Your task to perform on an android device: Show me recent news Image 0: 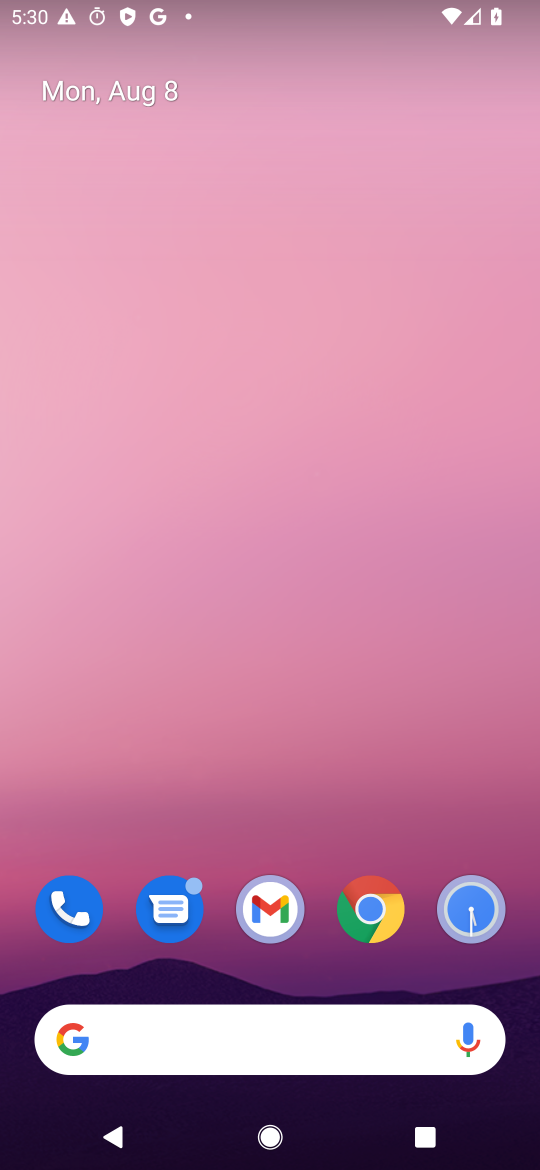
Step 0: click (192, 1031)
Your task to perform on an android device: Show me recent news Image 1: 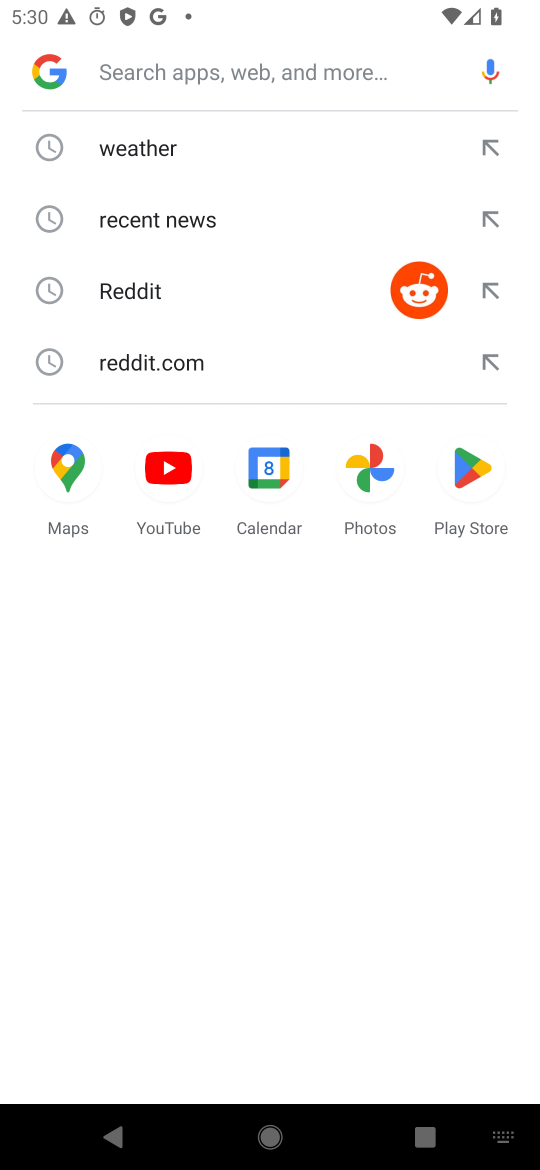
Step 1: click (181, 213)
Your task to perform on an android device: Show me recent news Image 2: 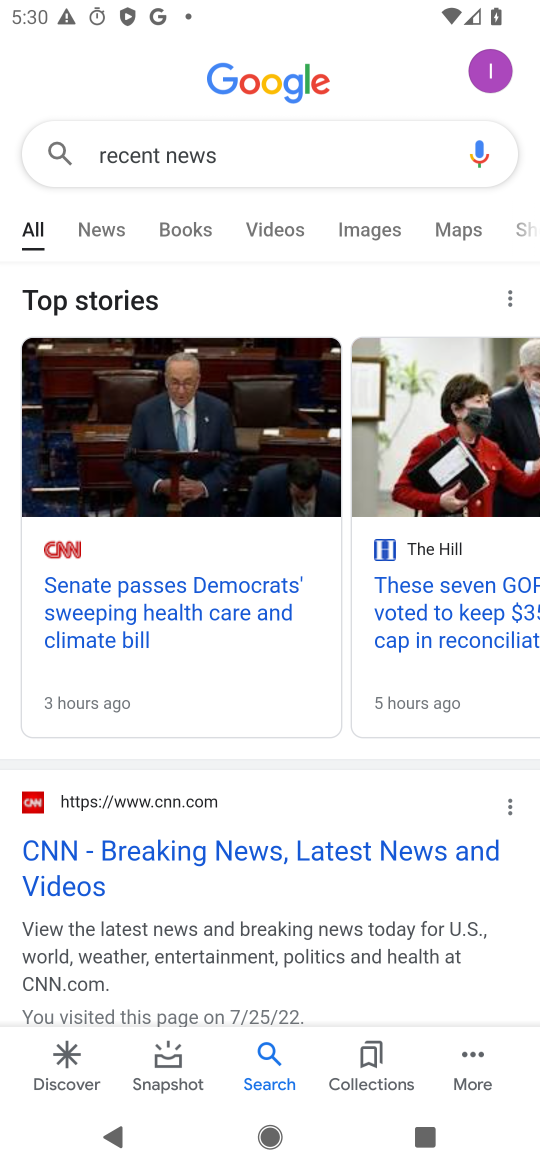
Step 2: click (86, 234)
Your task to perform on an android device: Show me recent news Image 3: 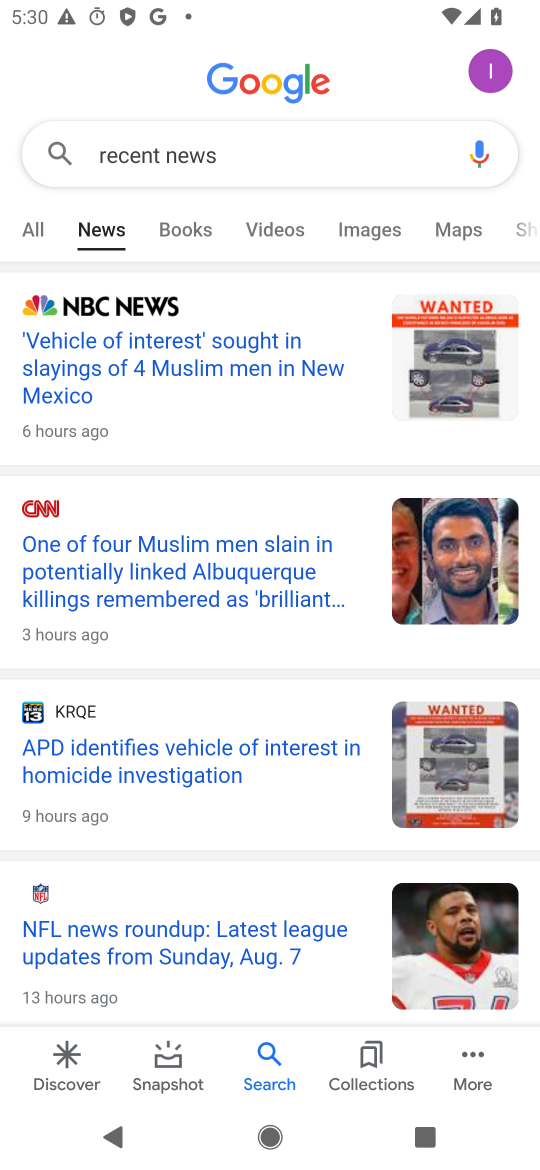
Step 3: task complete